Your task to perform on an android device: Open Google Chrome and open the bookmarks view Image 0: 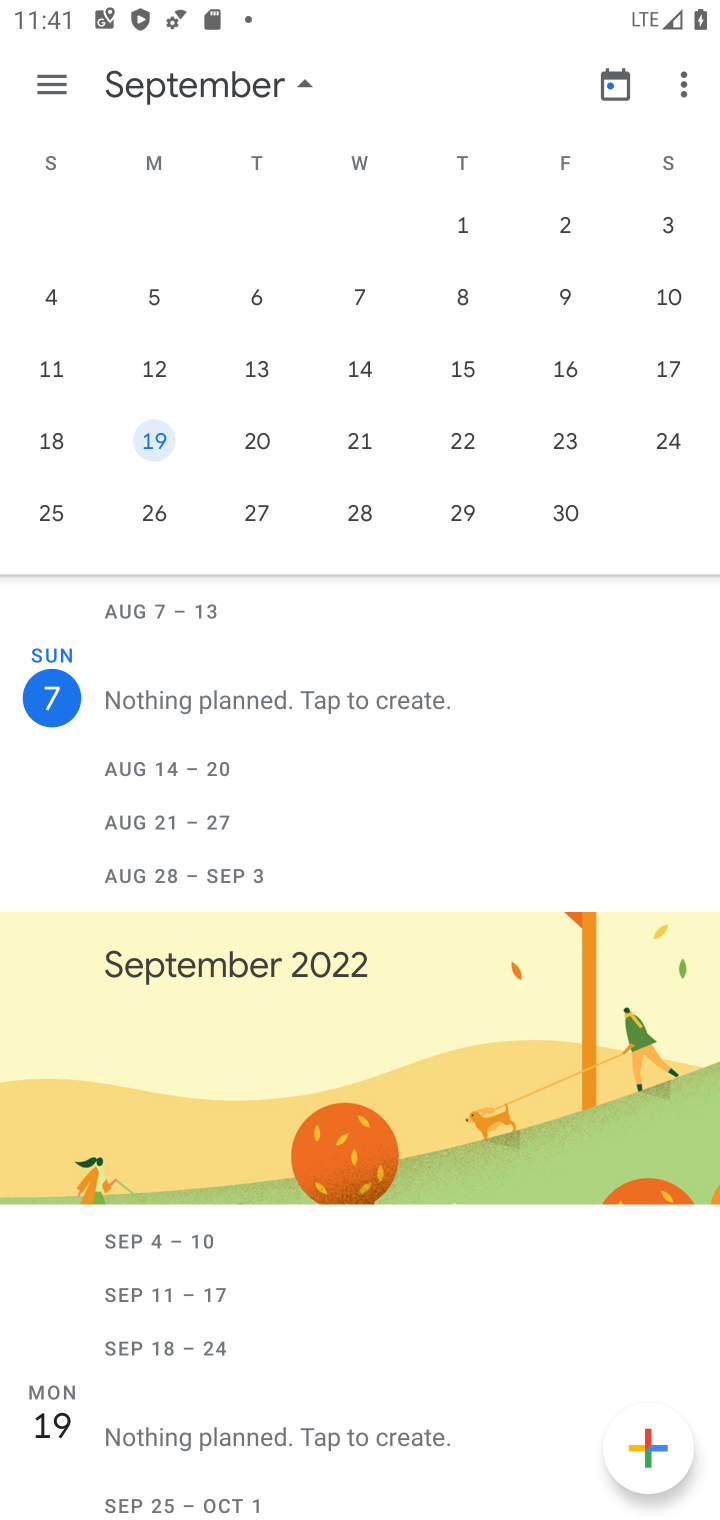
Step 0: press back button
Your task to perform on an android device: Open Google Chrome and open the bookmarks view Image 1: 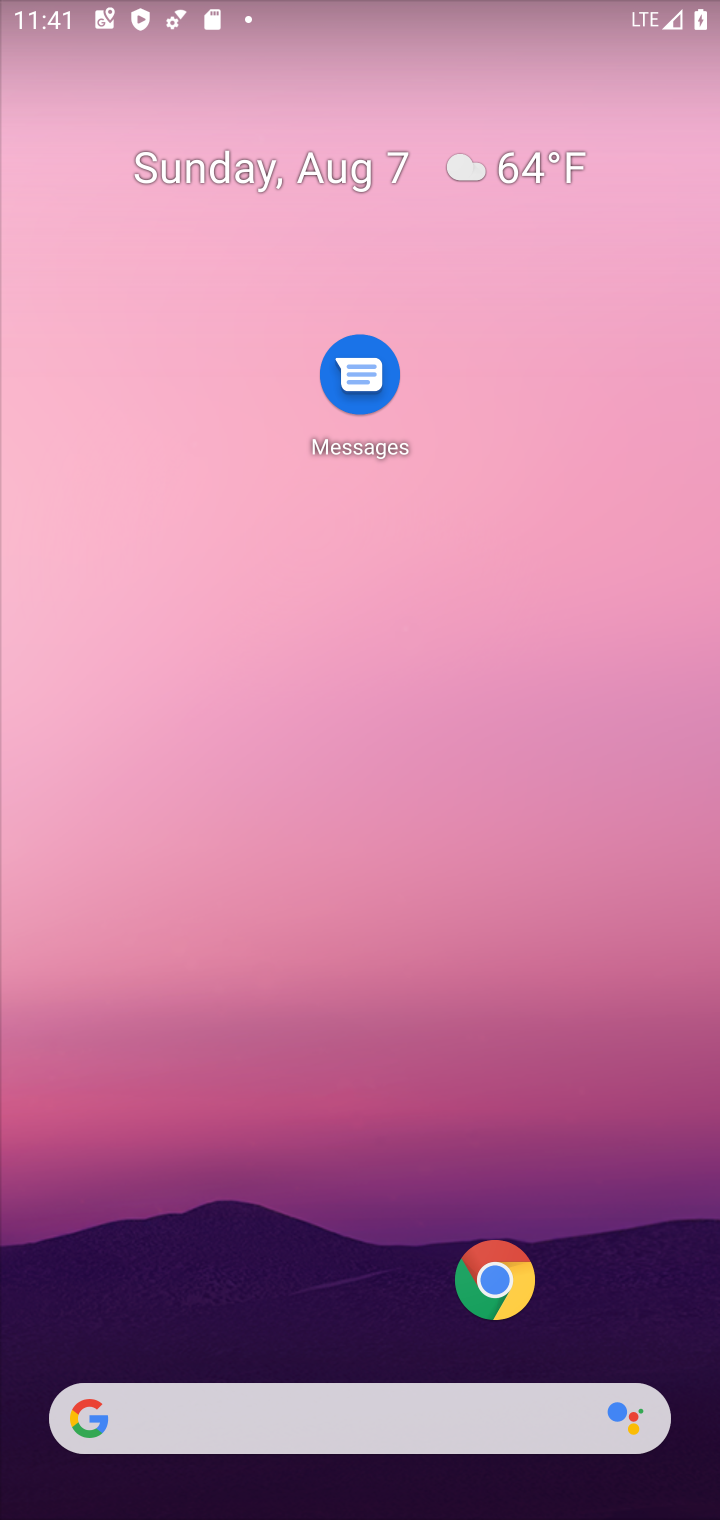
Step 1: click (498, 1277)
Your task to perform on an android device: Open Google Chrome and open the bookmarks view Image 2: 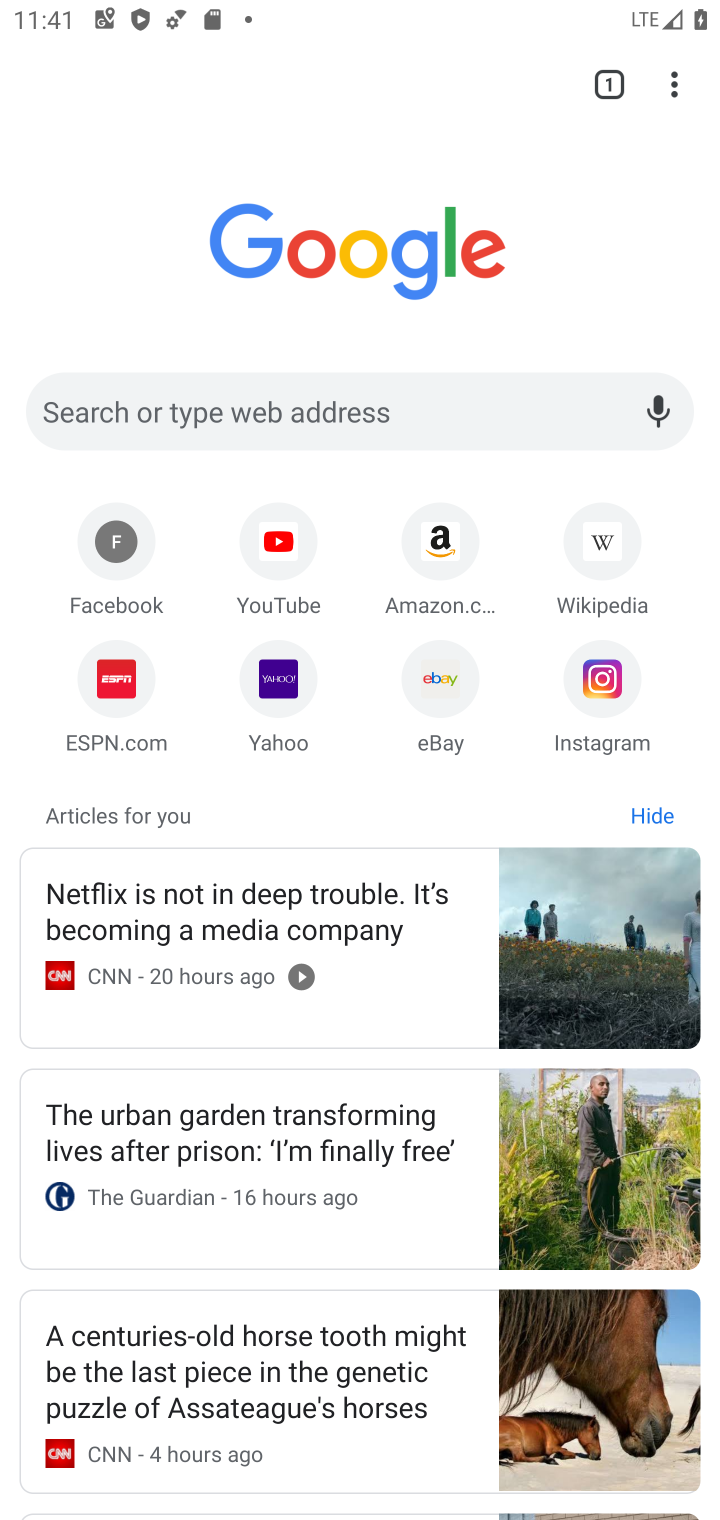
Step 2: task complete